Your task to perform on an android device: Open battery settings Image 0: 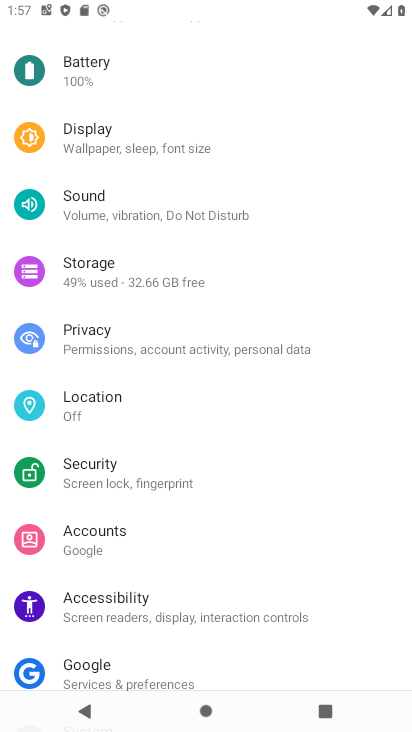
Step 0: press home button
Your task to perform on an android device: Open battery settings Image 1: 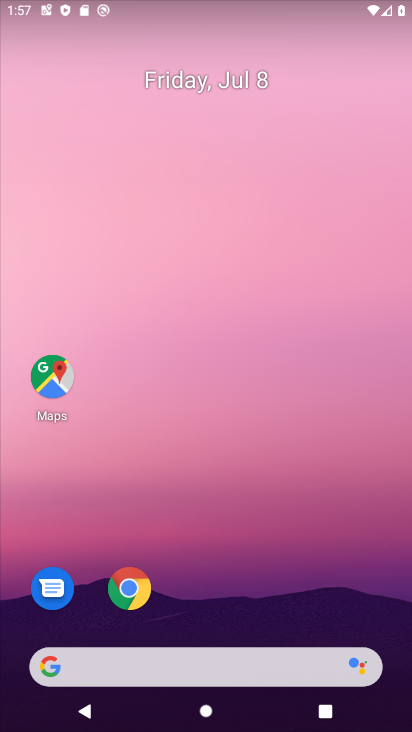
Step 1: drag from (171, 627) to (219, 226)
Your task to perform on an android device: Open battery settings Image 2: 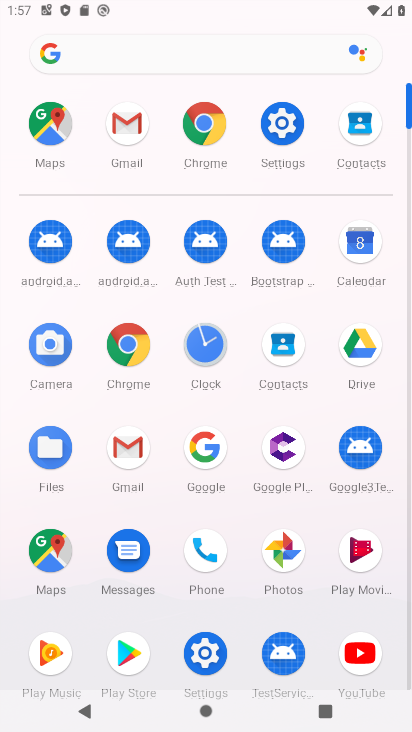
Step 2: click (277, 132)
Your task to perform on an android device: Open battery settings Image 3: 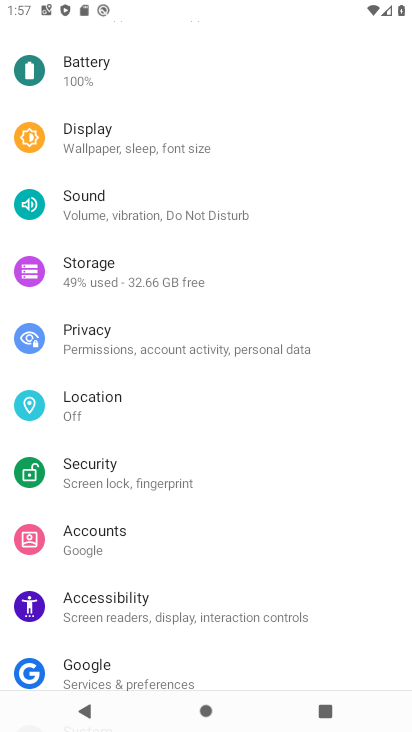
Step 3: click (86, 67)
Your task to perform on an android device: Open battery settings Image 4: 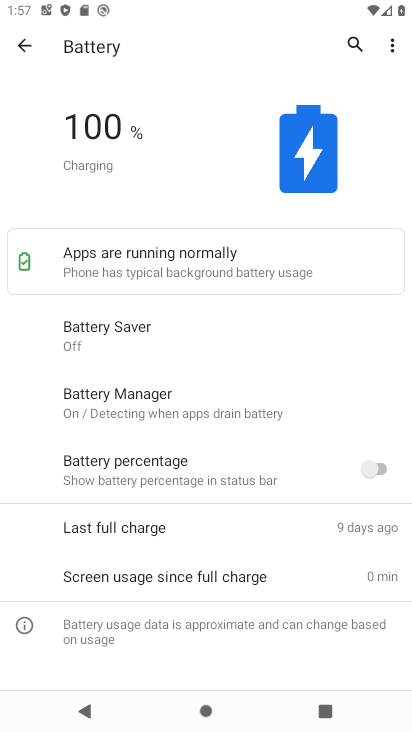
Step 4: task complete